Your task to perform on an android device: all mails in gmail Image 0: 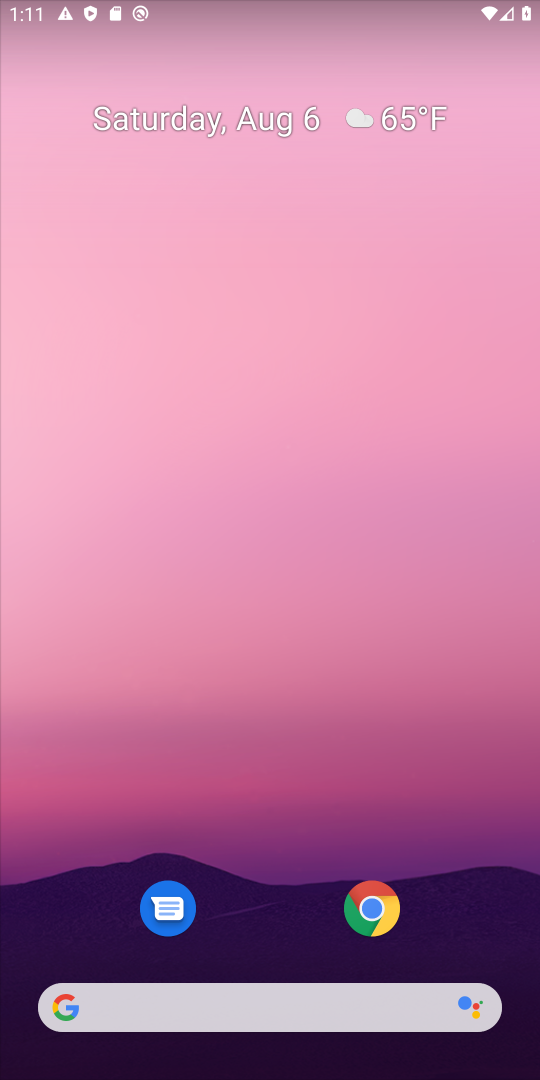
Step 0: drag from (277, 842) to (195, 62)
Your task to perform on an android device: all mails in gmail Image 1: 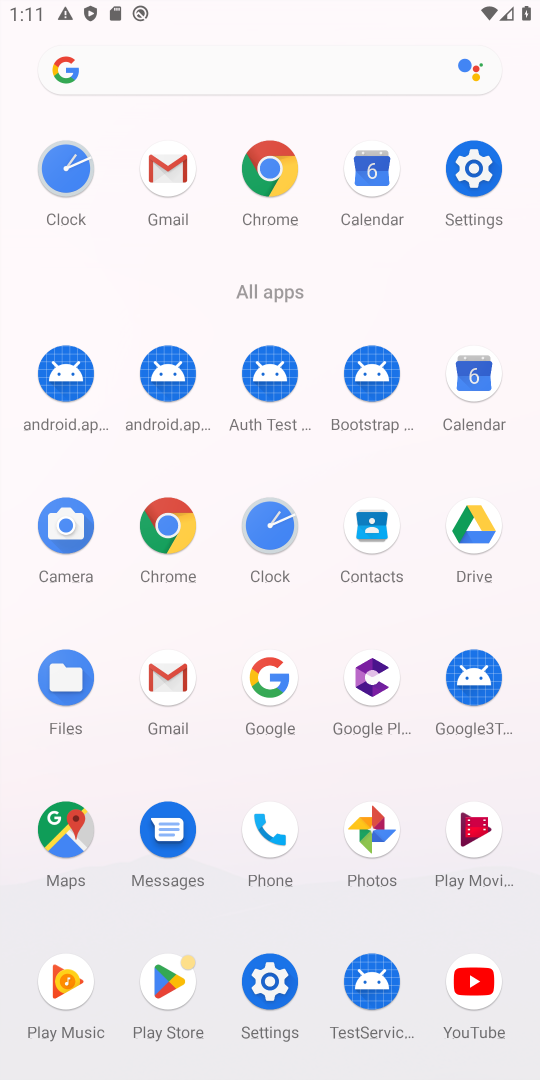
Step 1: click (161, 172)
Your task to perform on an android device: all mails in gmail Image 2: 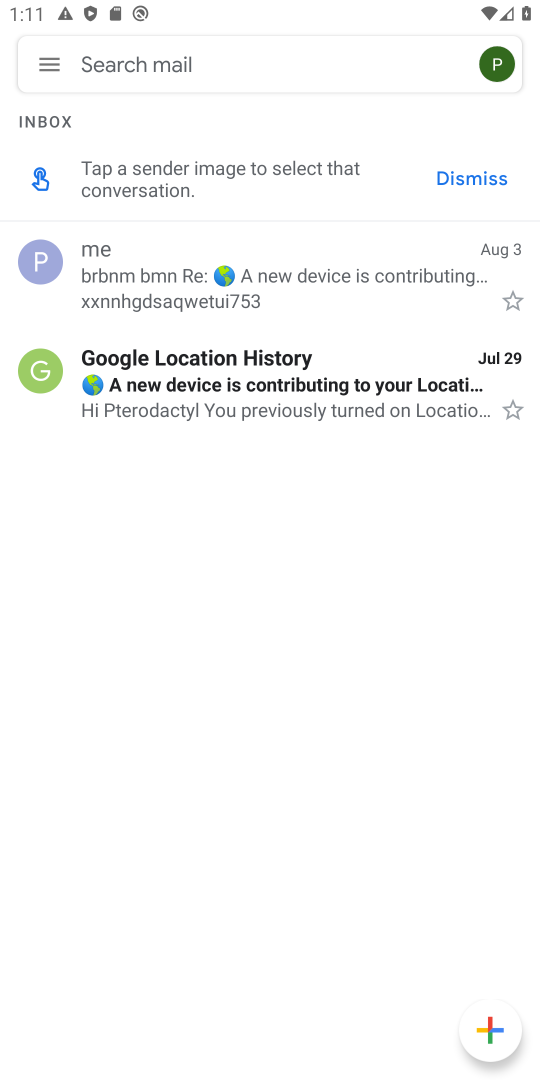
Step 2: click (45, 75)
Your task to perform on an android device: all mails in gmail Image 3: 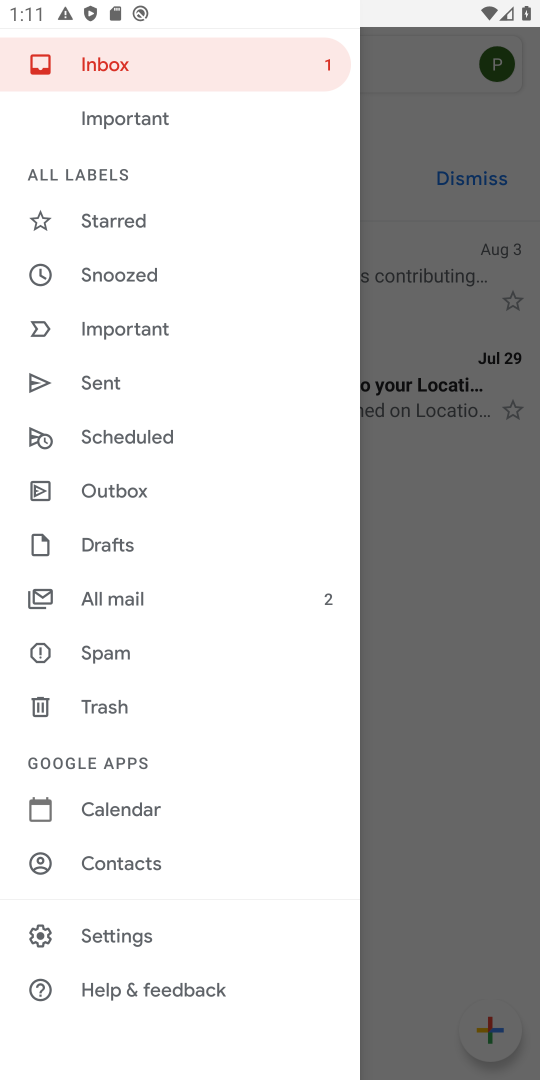
Step 3: click (144, 596)
Your task to perform on an android device: all mails in gmail Image 4: 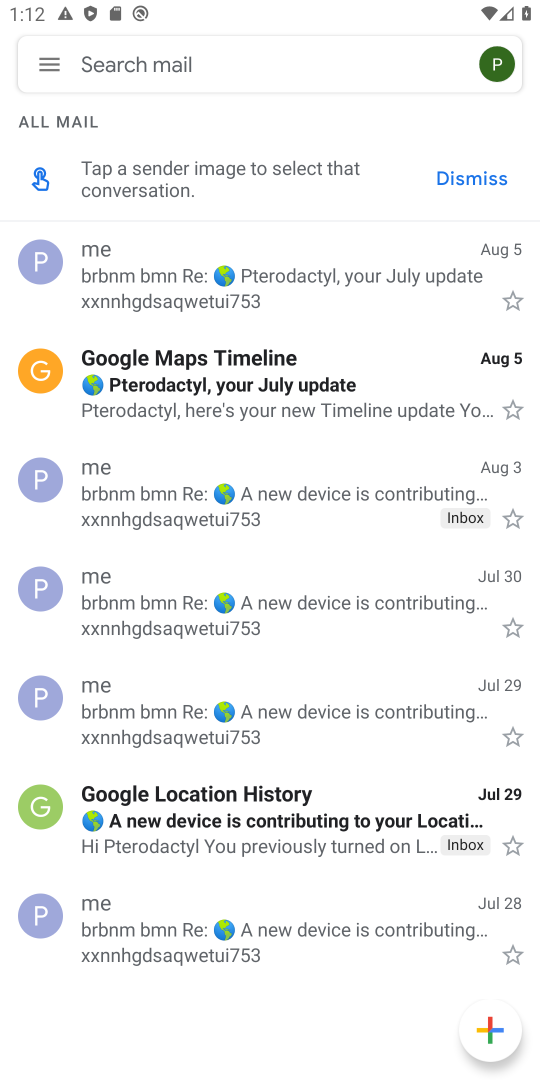
Step 4: task complete